Your task to perform on an android device: toggle notification dots Image 0: 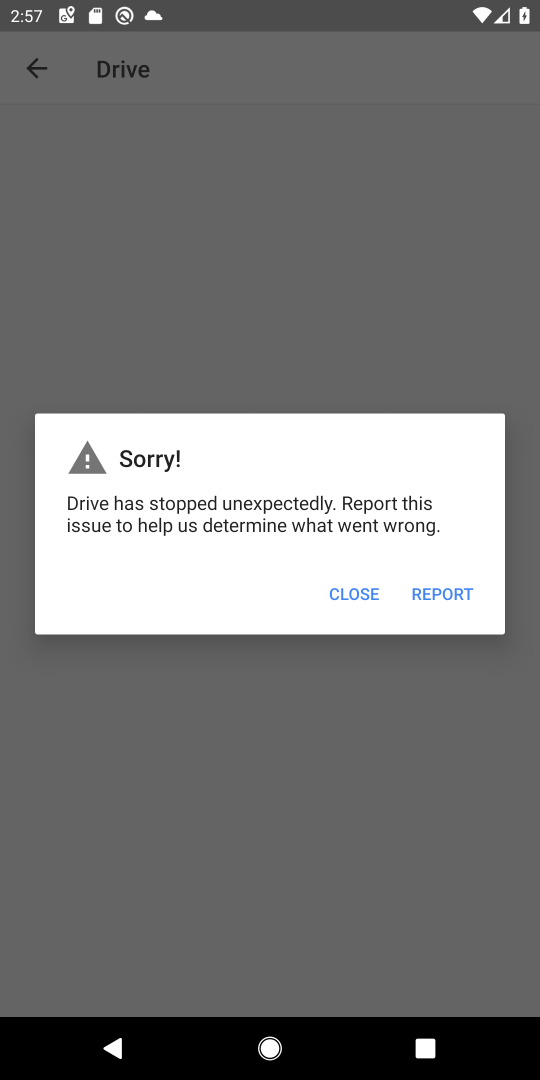
Step 0: press home button
Your task to perform on an android device: toggle notification dots Image 1: 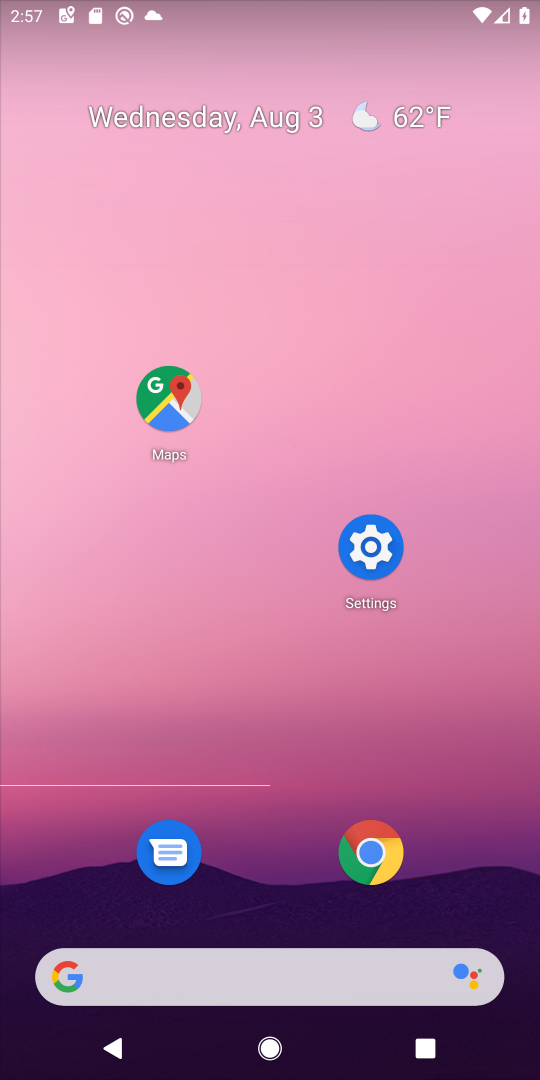
Step 1: click (367, 543)
Your task to perform on an android device: toggle notification dots Image 2: 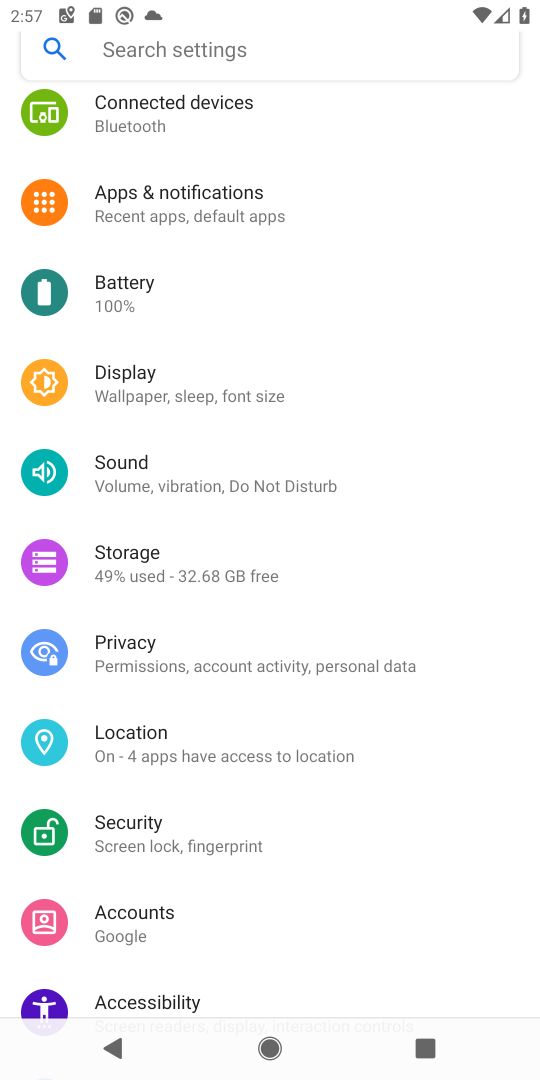
Step 2: click (218, 196)
Your task to perform on an android device: toggle notification dots Image 3: 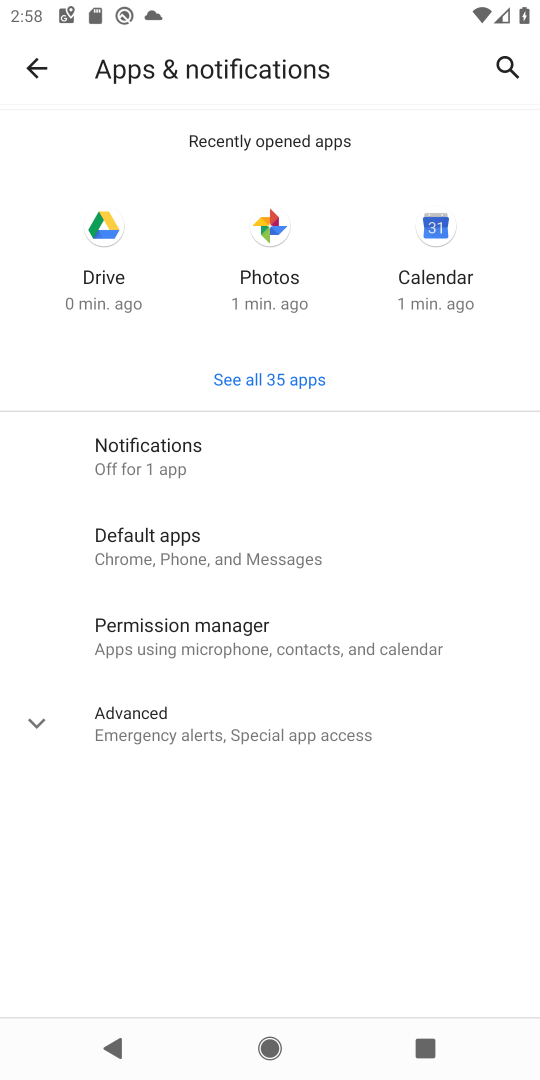
Step 3: click (170, 464)
Your task to perform on an android device: toggle notification dots Image 4: 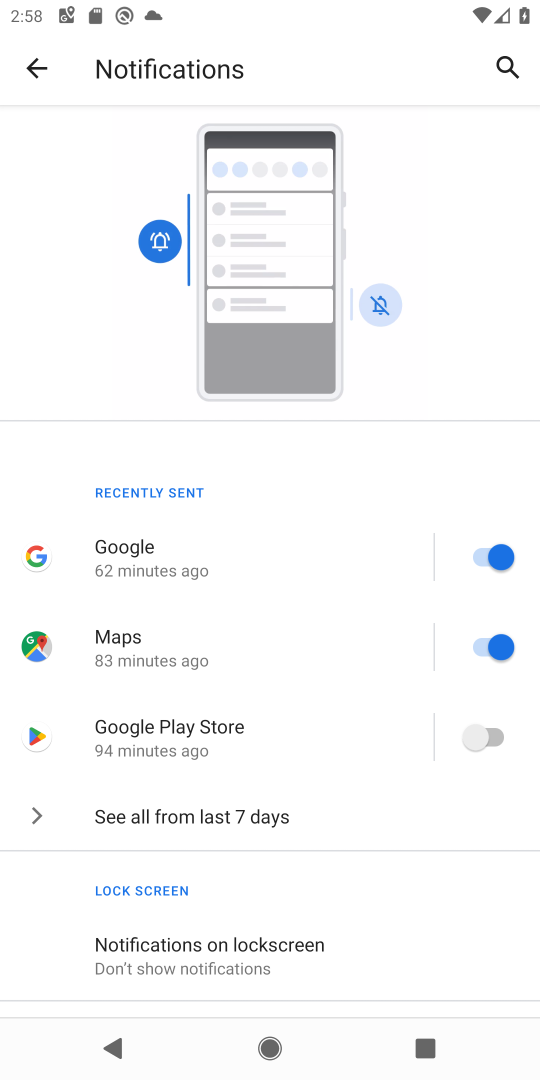
Step 4: click (493, 736)
Your task to perform on an android device: toggle notification dots Image 5: 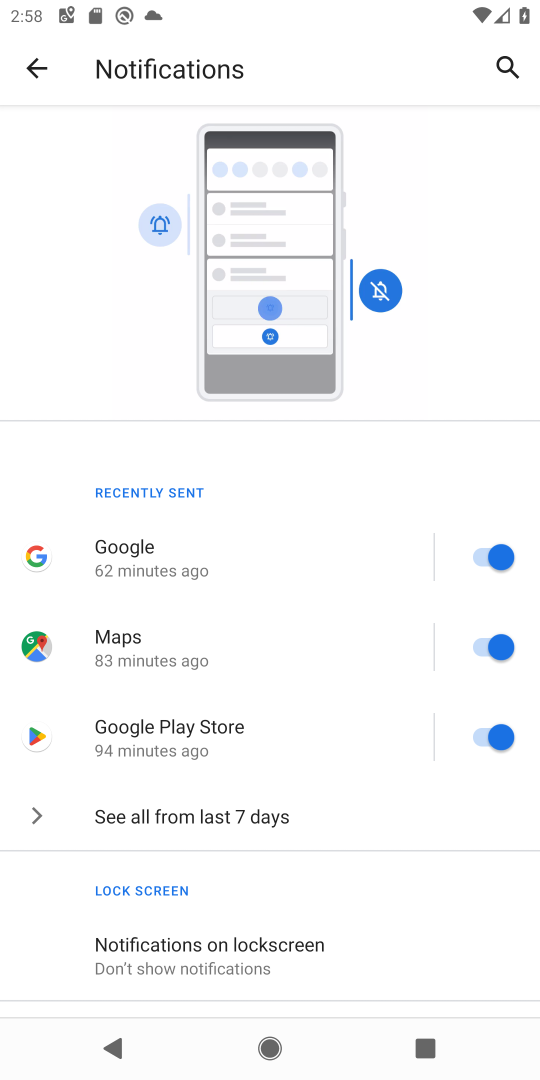
Step 5: task complete